Your task to perform on an android device: empty trash in the gmail app Image 0: 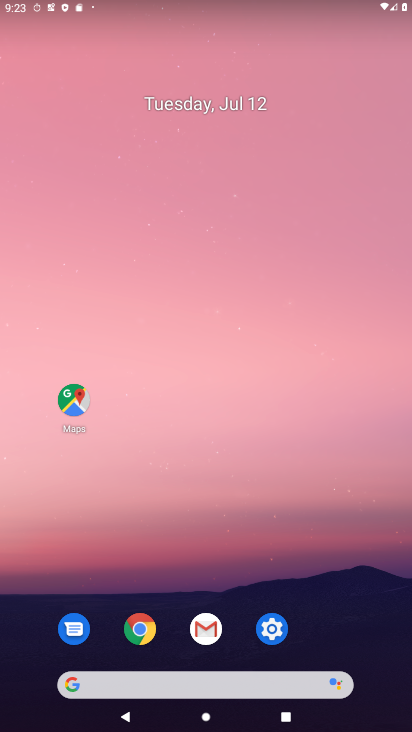
Step 0: click (215, 616)
Your task to perform on an android device: empty trash in the gmail app Image 1: 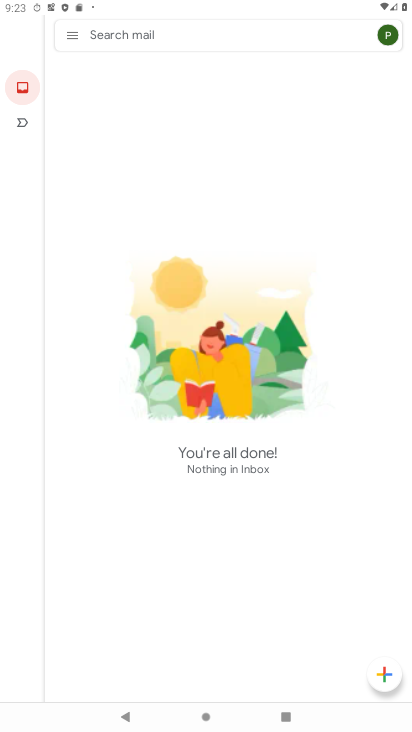
Step 1: click (70, 39)
Your task to perform on an android device: empty trash in the gmail app Image 2: 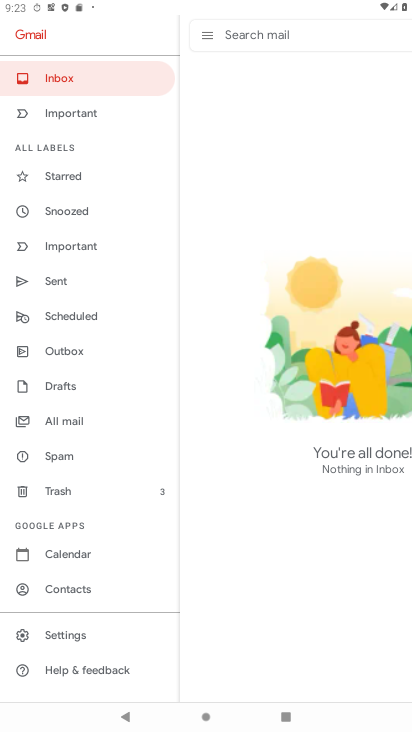
Step 2: click (64, 487)
Your task to perform on an android device: empty trash in the gmail app Image 3: 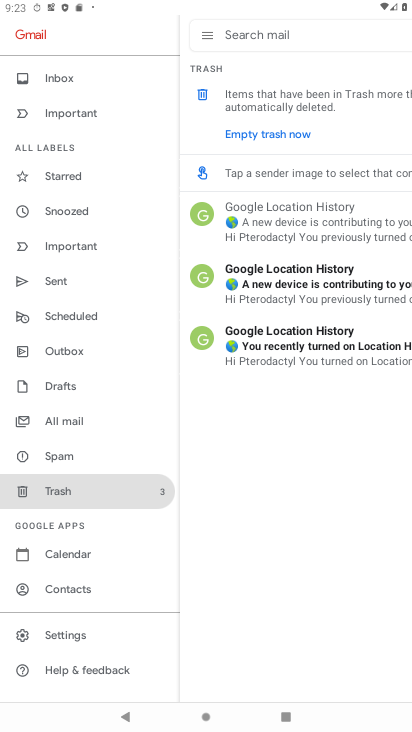
Step 3: click (256, 137)
Your task to perform on an android device: empty trash in the gmail app Image 4: 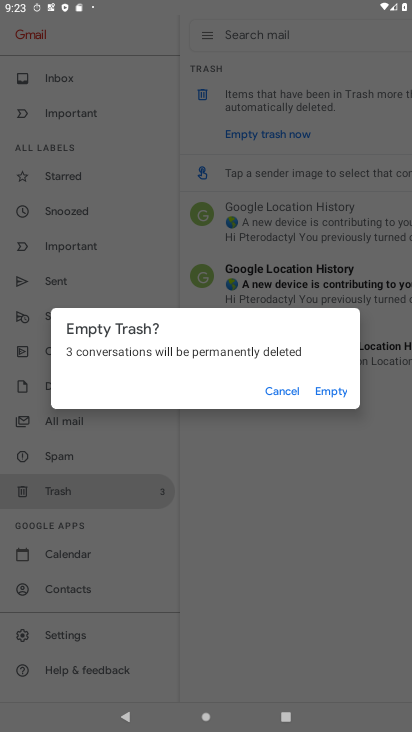
Step 4: click (326, 396)
Your task to perform on an android device: empty trash in the gmail app Image 5: 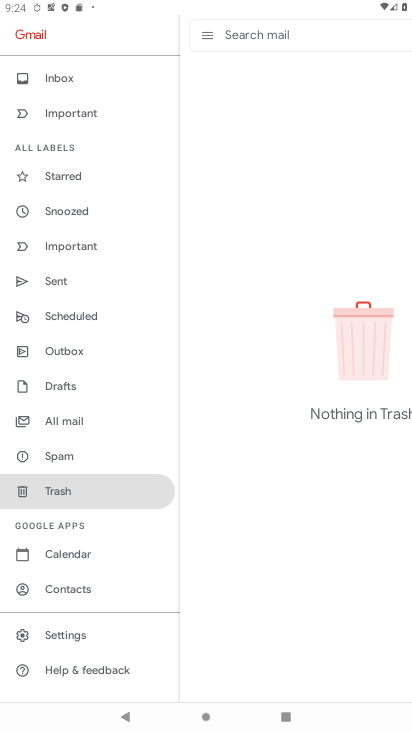
Step 5: task complete